Your task to perform on an android device: Open Chrome and go to settings Image 0: 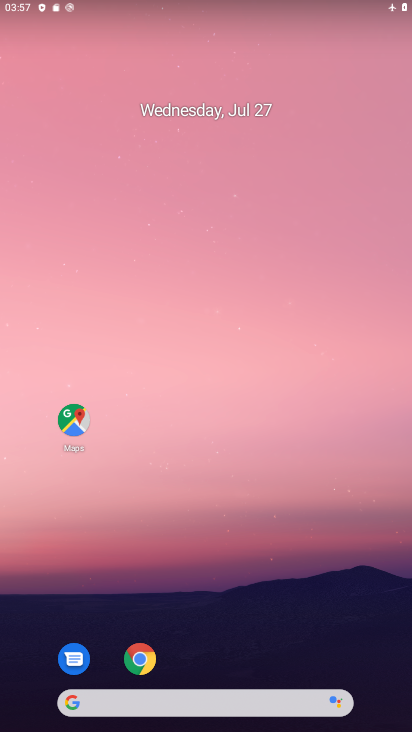
Step 0: click (146, 664)
Your task to perform on an android device: Open Chrome and go to settings Image 1: 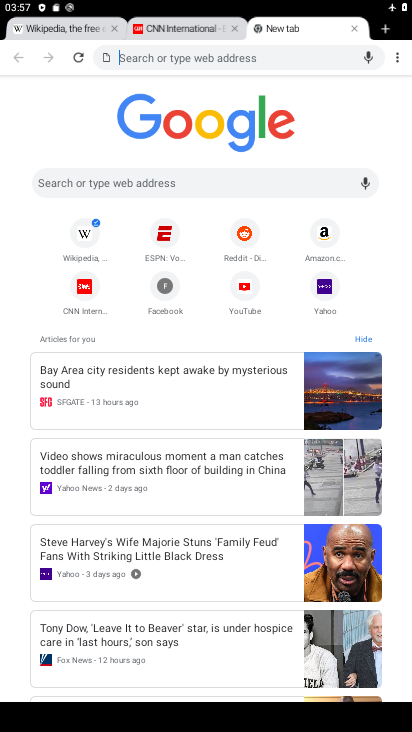
Step 1: task complete